Your task to perform on an android device: Look up the best rated headphones on Aliexpress Image 0: 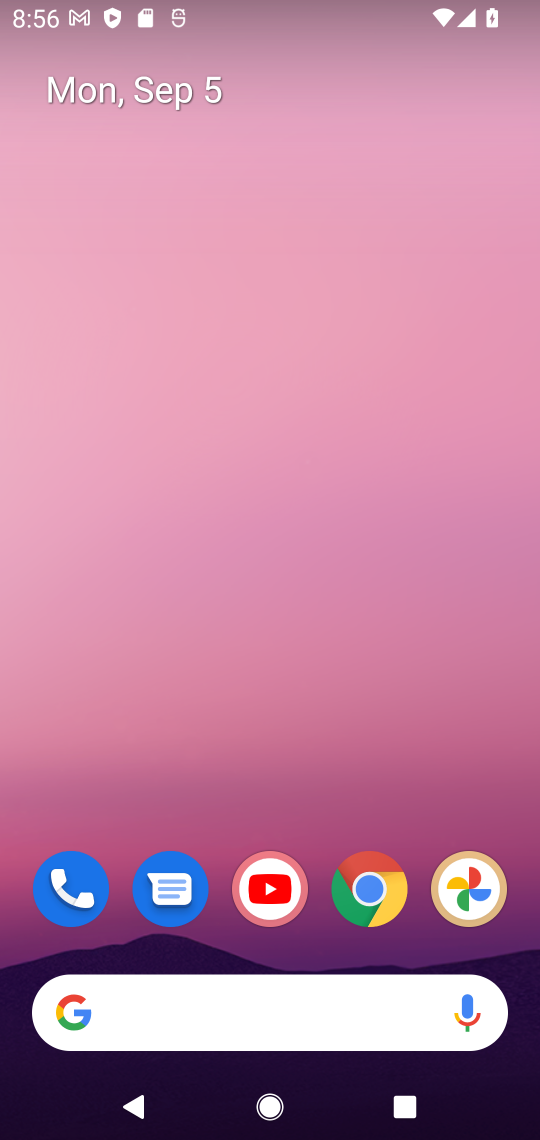
Step 0: click (265, 1027)
Your task to perform on an android device: Look up the best rated headphones on Aliexpress Image 1: 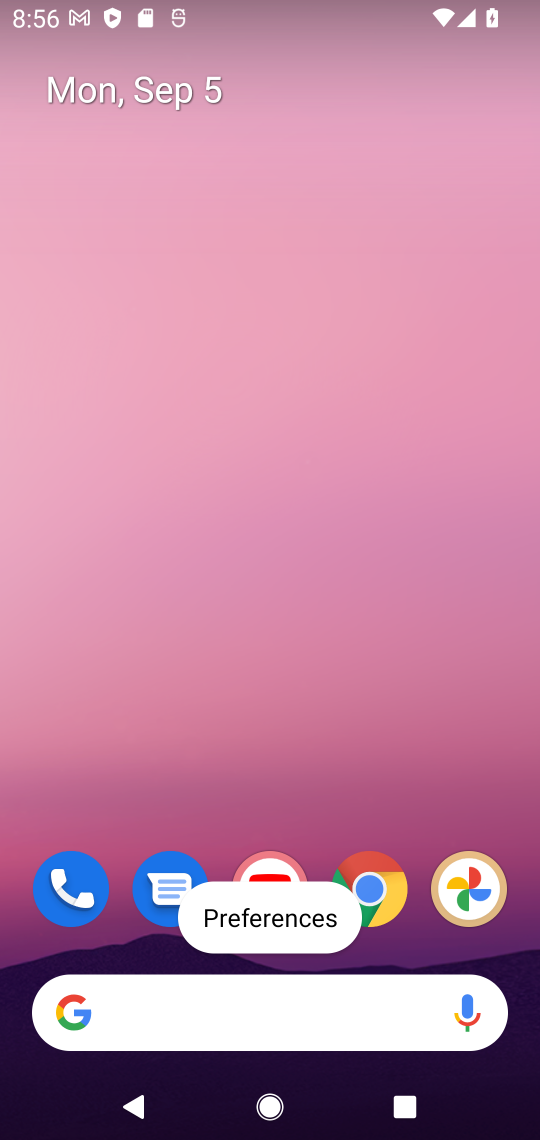
Step 1: click (265, 1027)
Your task to perform on an android device: Look up the best rated headphones on Aliexpress Image 2: 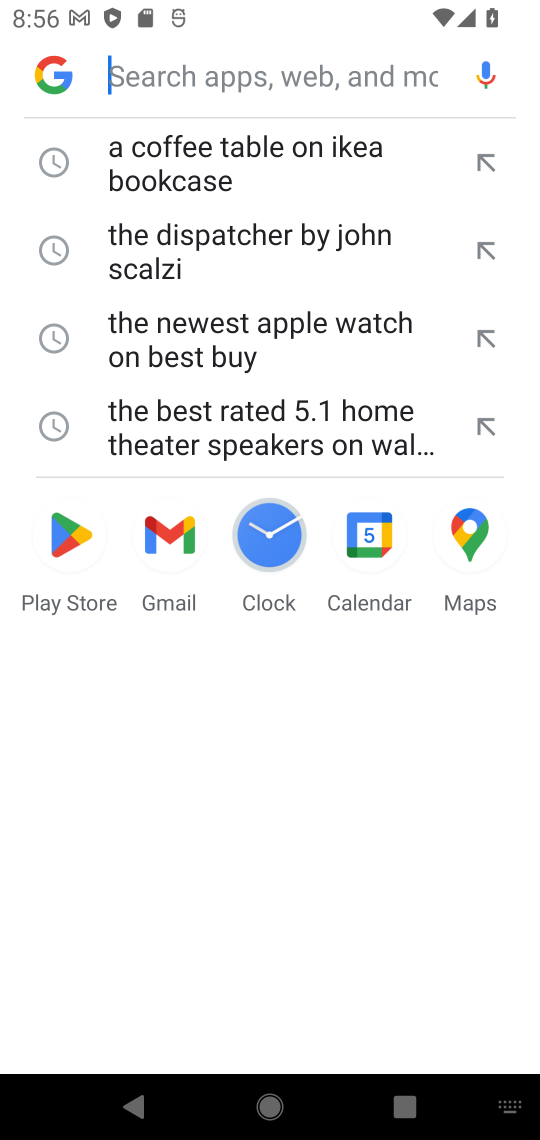
Step 2: type " the best rated headphones on Aliexpress"
Your task to perform on an android device: Look up the best rated headphones on Aliexpress Image 3: 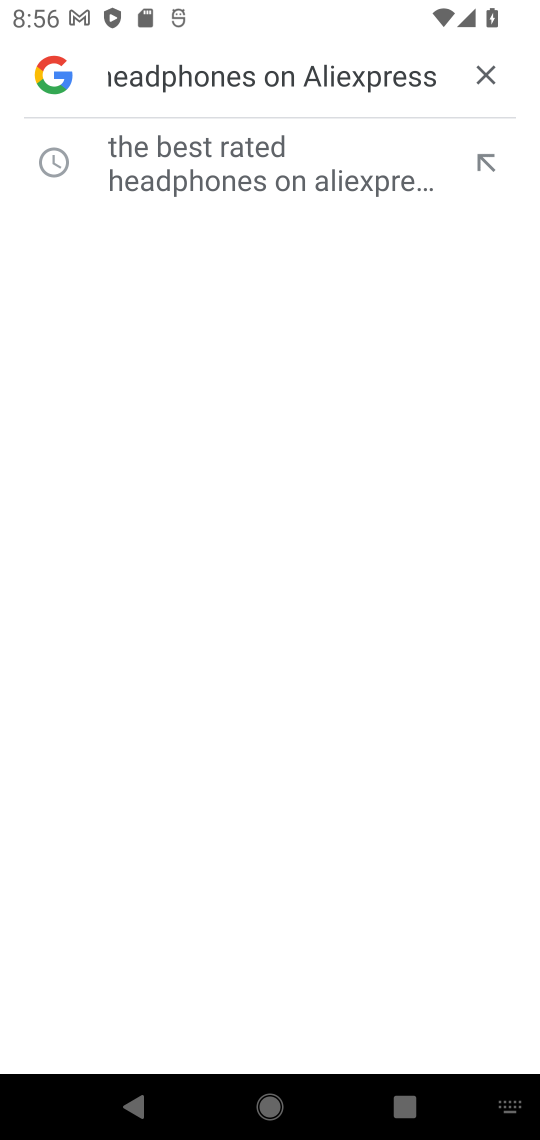
Step 3: click (268, 153)
Your task to perform on an android device: Look up the best rated headphones on Aliexpress Image 4: 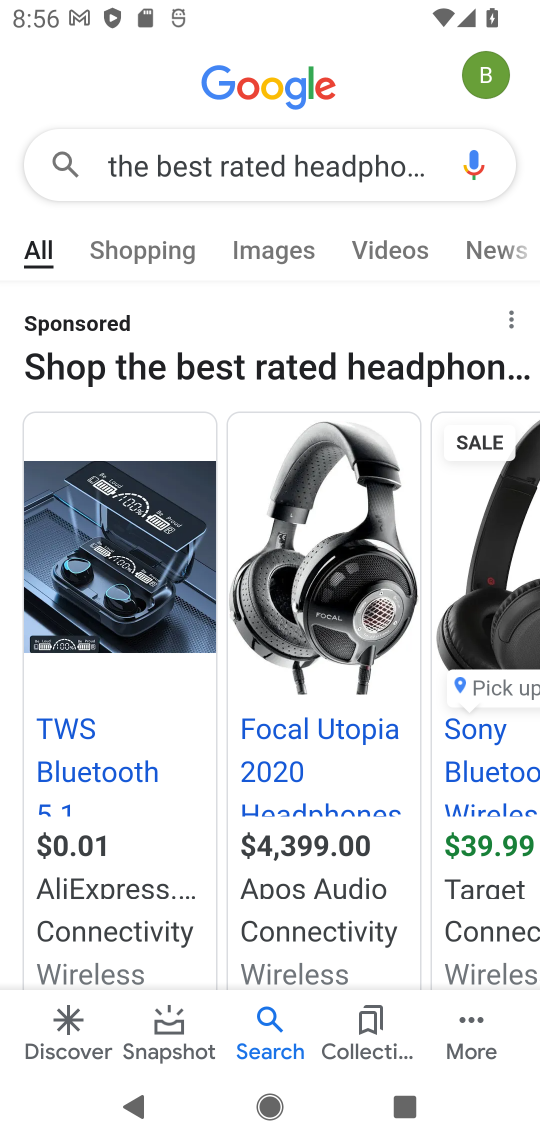
Step 4: drag from (153, 887) to (272, 211)
Your task to perform on an android device: Look up the best rated headphones on Aliexpress Image 5: 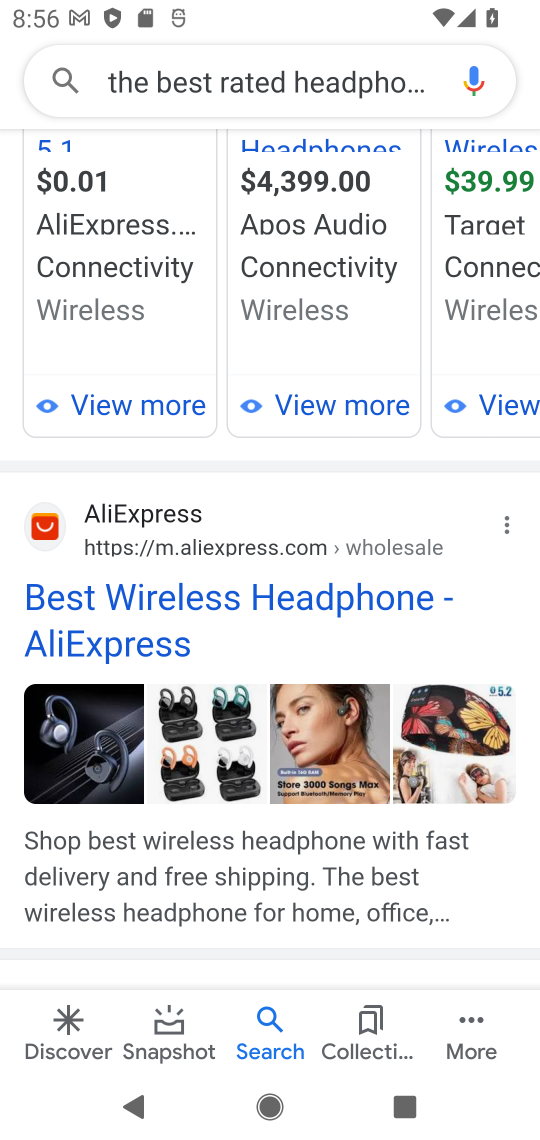
Step 5: click (199, 339)
Your task to perform on an android device: Look up the best rated headphones on Aliexpress Image 6: 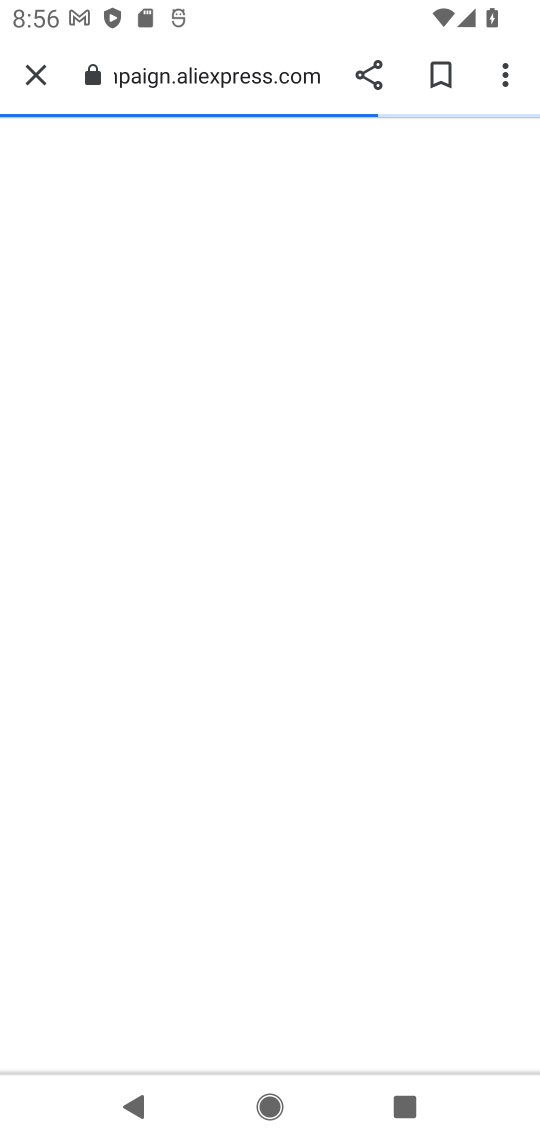
Step 6: task complete